Your task to perform on an android device: Go to Google maps Image 0: 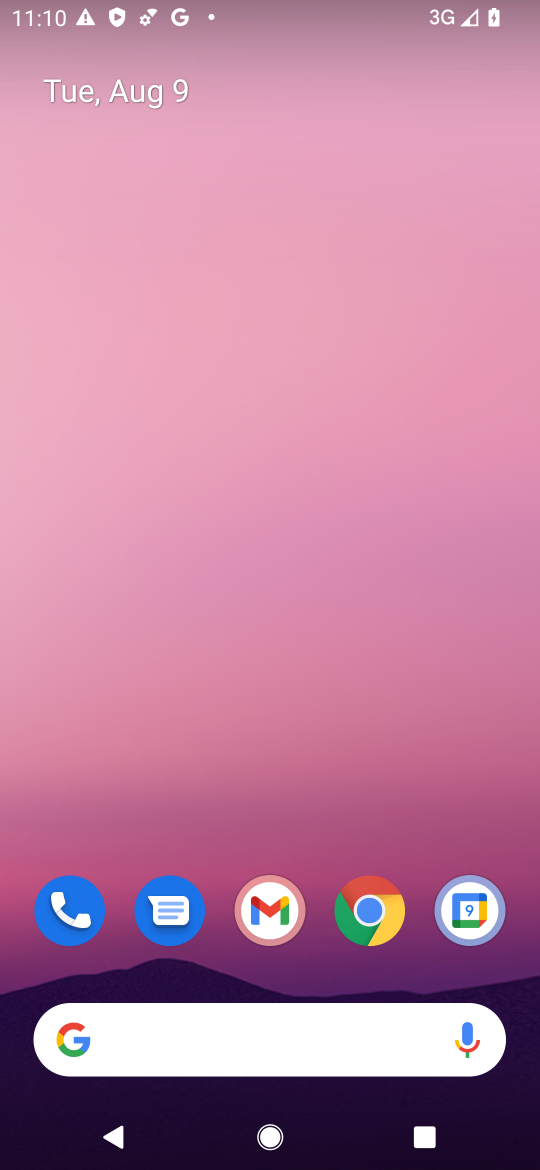
Step 0: press home button
Your task to perform on an android device: Go to Google maps Image 1: 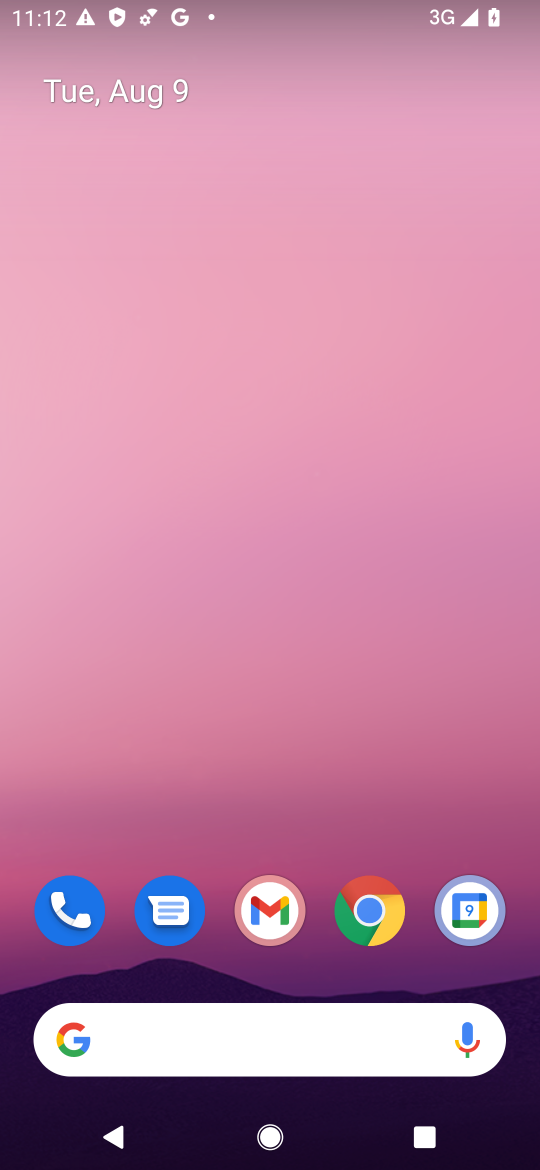
Step 1: task complete